Your task to perform on an android device: Do I have any events this weekend? Image 0: 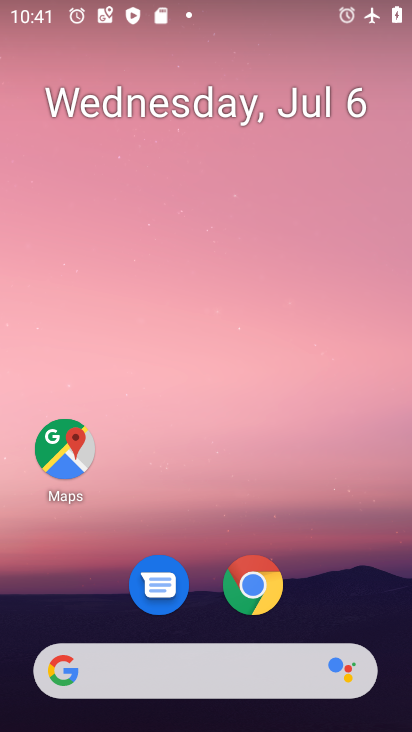
Step 0: drag from (199, 520) to (219, 47)
Your task to perform on an android device: Do I have any events this weekend? Image 1: 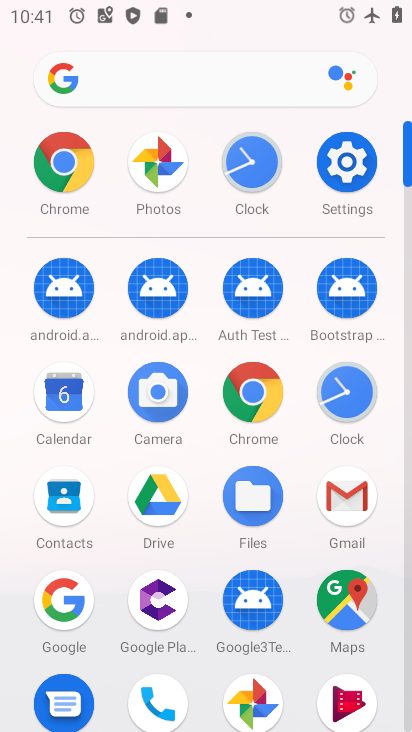
Step 1: click (70, 400)
Your task to perform on an android device: Do I have any events this weekend? Image 2: 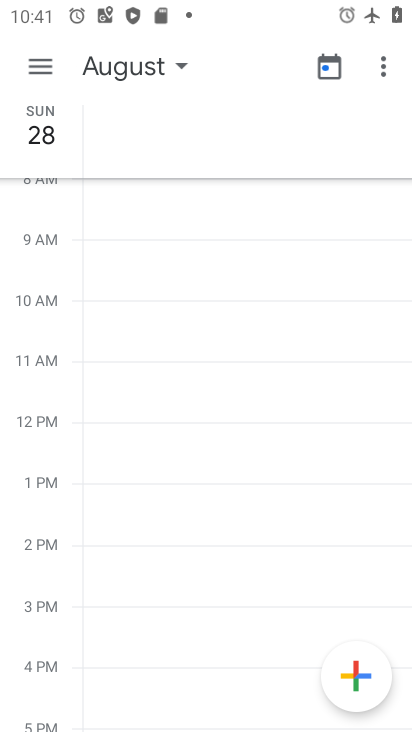
Step 2: click (40, 66)
Your task to perform on an android device: Do I have any events this weekend? Image 3: 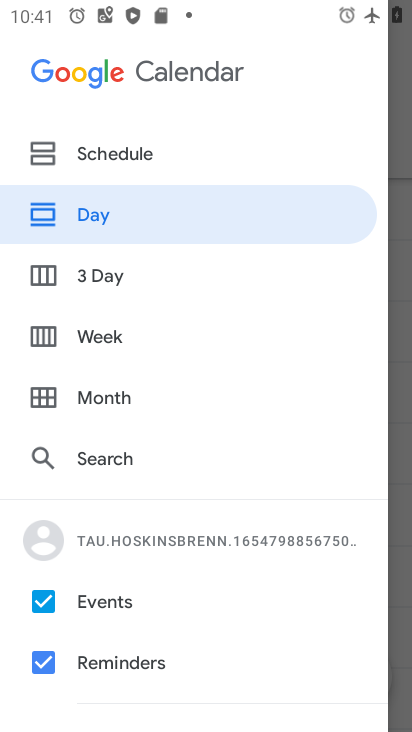
Step 3: click (37, 388)
Your task to perform on an android device: Do I have any events this weekend? Image 4: 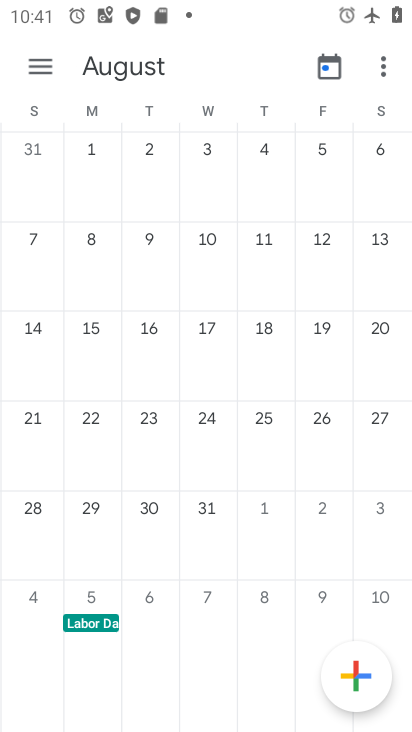
Step 4: drag from (114, 321) to (411, 385)
Your task to perform on an android device: Do I have any events this weekend? Image 5: 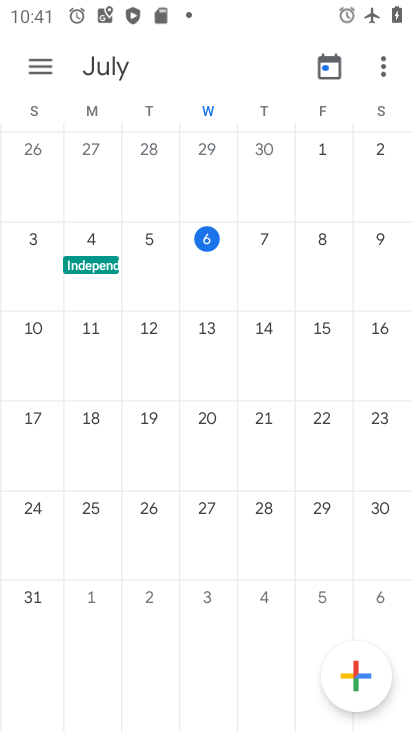
Step 5: click (210, 242)
Your task to perform on an android device: Do I have any events this weekend? Image 6: 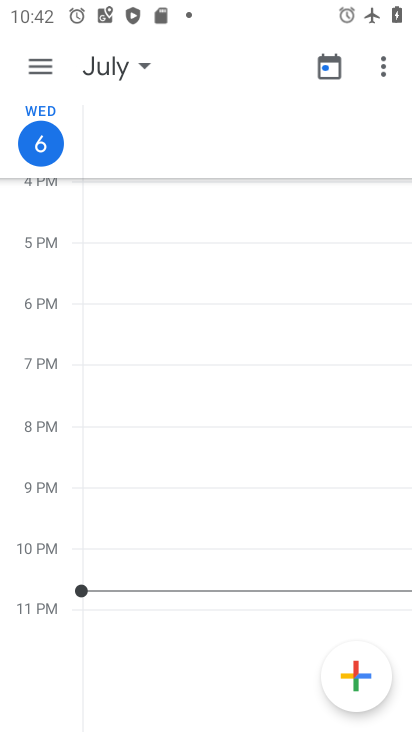
Step 6: click (36, 66)
Your task to perform on an android device: Do I have any events this weekend? Image 7: 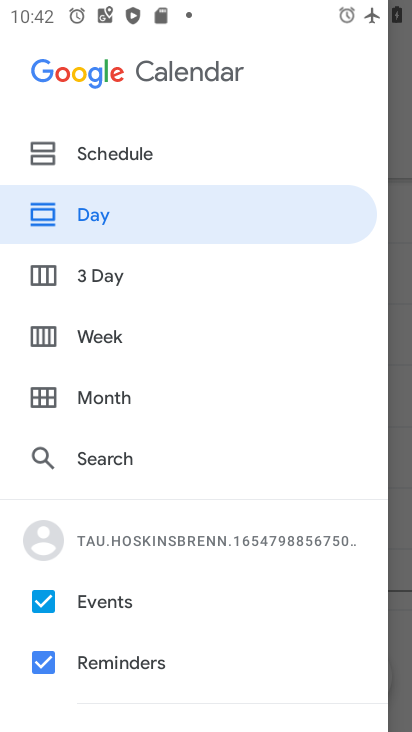
Step 7: click (70, 327)
Your task to perform on an android device: Do I have any events this weekend? Image 8: 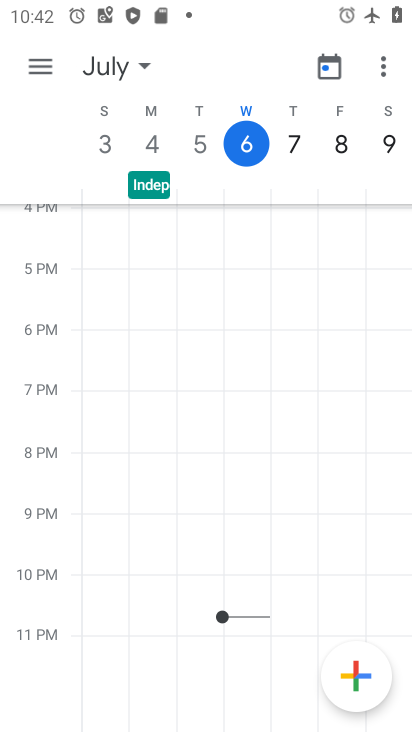
Step 8: click (389, 126)
Your task to perform on an android device: Do I have any events this weekend? Image 9: 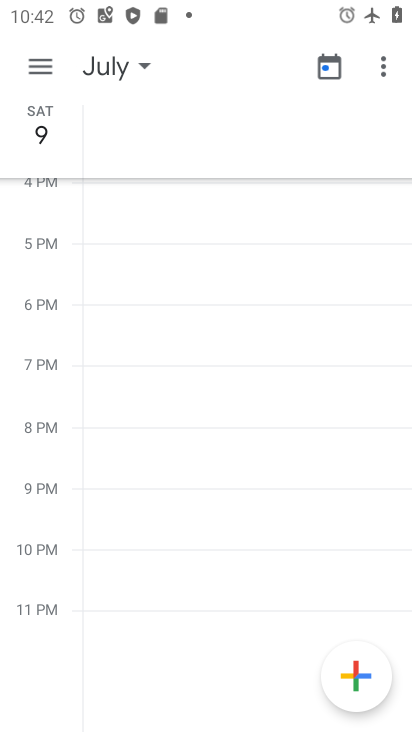
Step 9: task complete